Your task to perform on an android device: Empty the shopping cart on newegg. Image 0: 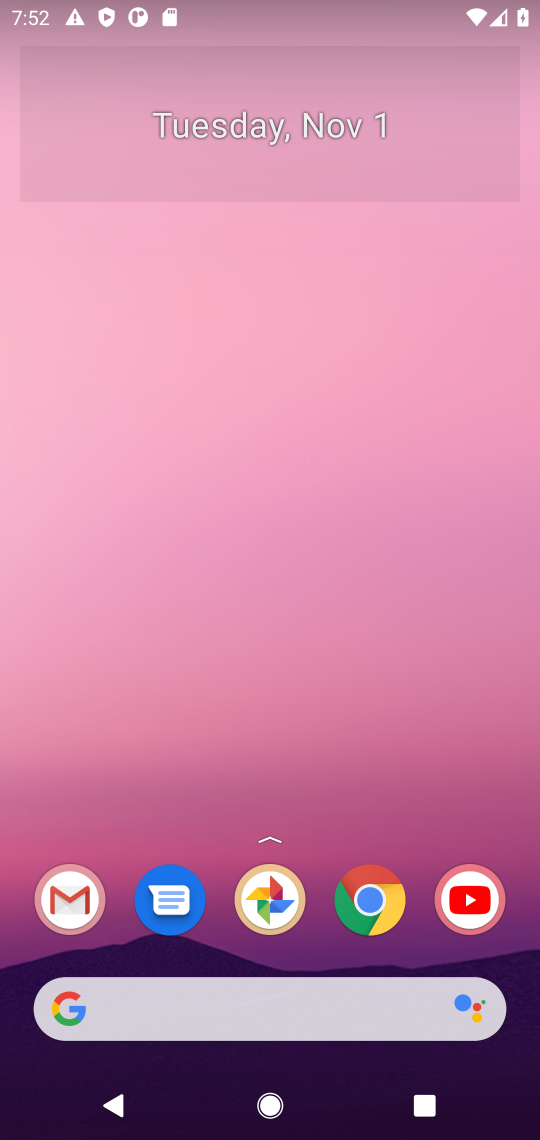
Step 0: drag from (306, 967) to (431, 74)
Your task to perform on an android device: Empty the shopping cart on newegg. Image 1: 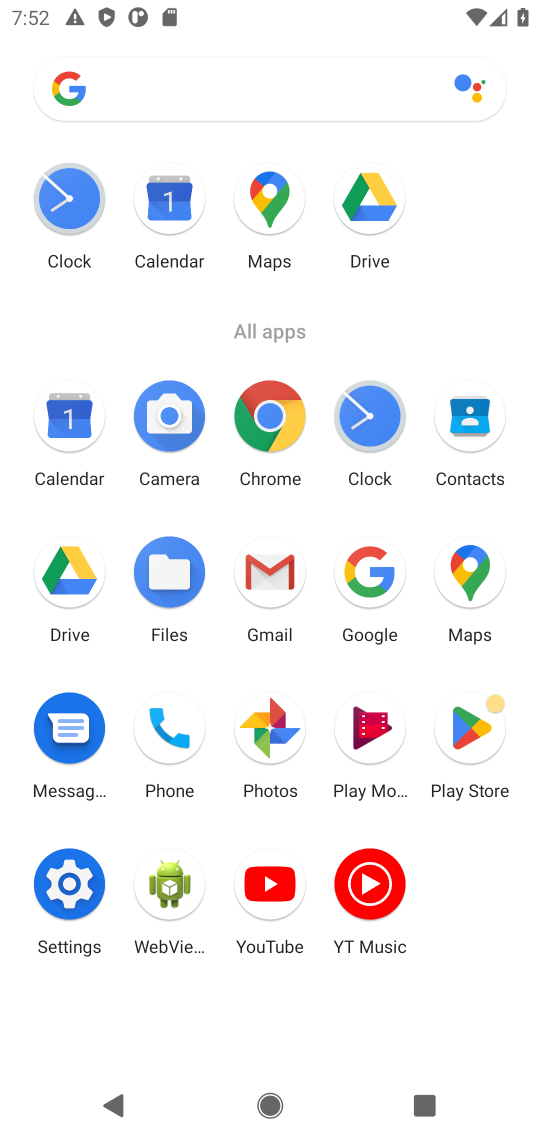
Step 1: click (275, 427)
Your task to perform on an android device: Empty the shopping cart on newegg. Image 2: 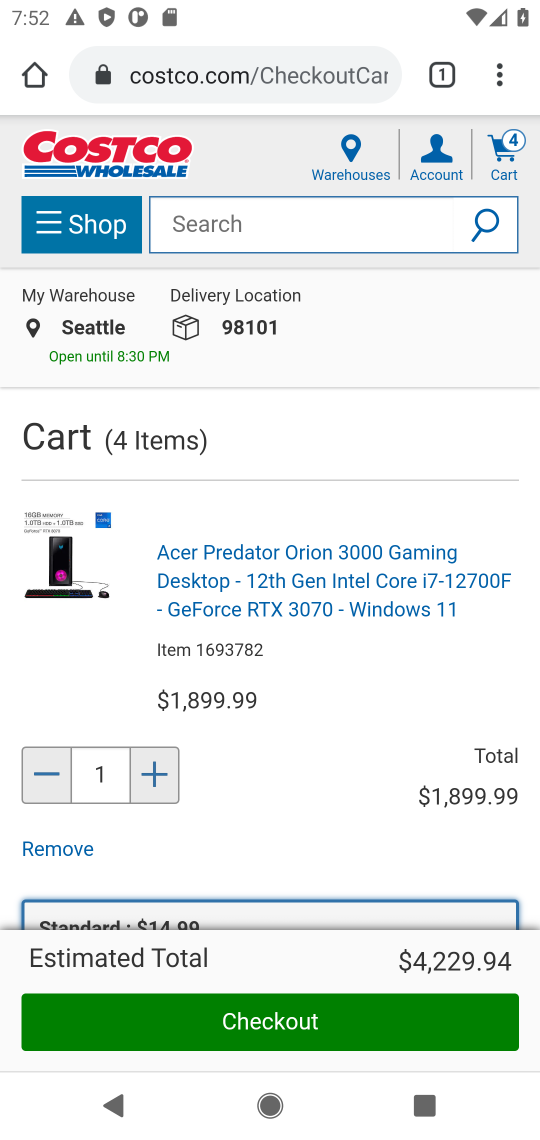
Step 2: click (311, 77)
Your task to perform on an android device: Empty the shopping cart on newegg. Image 3: 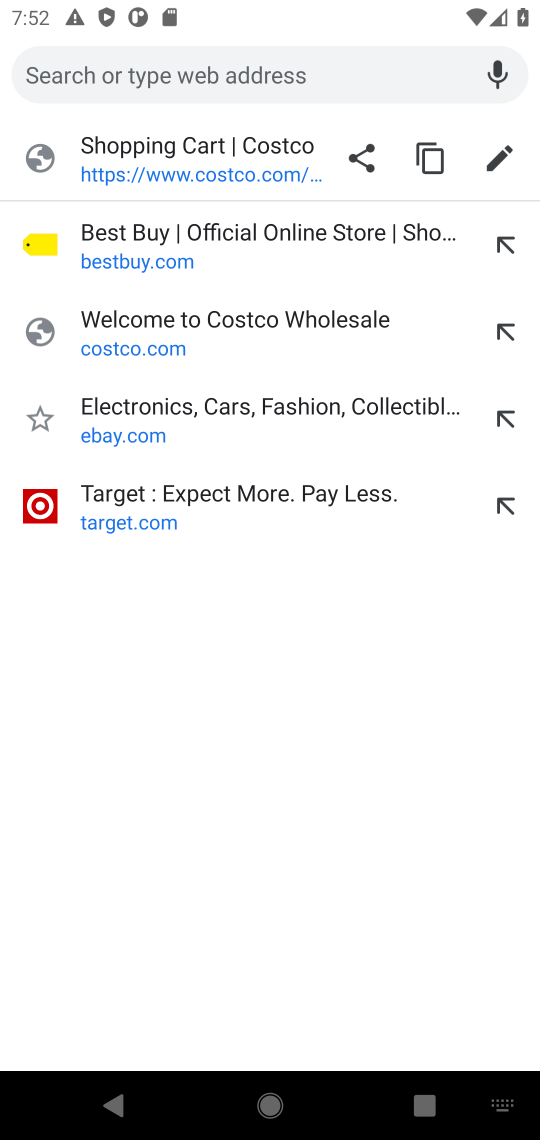
Step 3: type "newegg.com"
Your task to perform on an android device: Empty the shopping cart on newegg. Image 4: 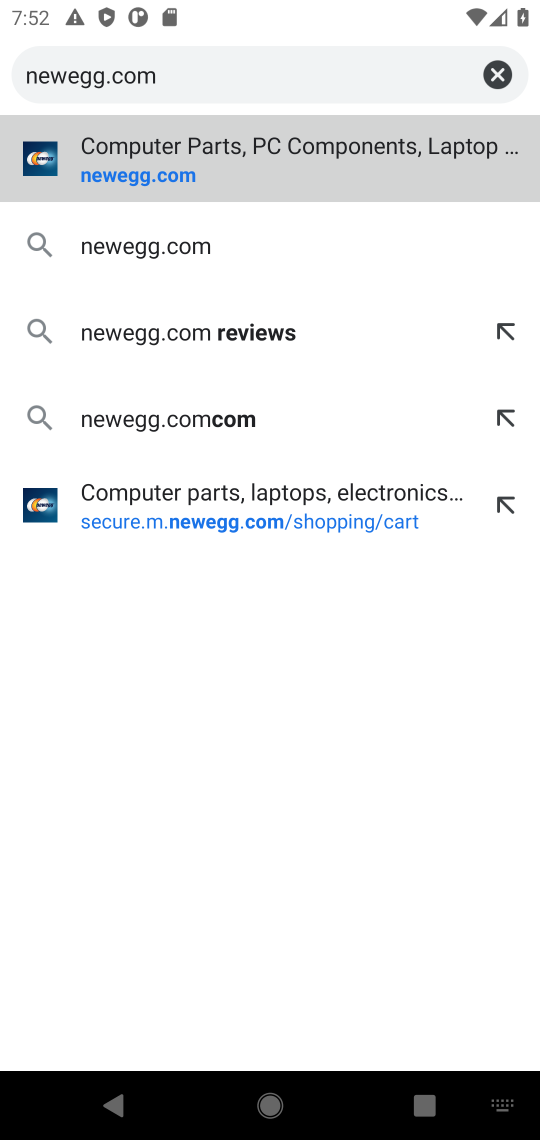
Step 4: press enter
Your task to perform on an android device: Empty the shopping cart on newegg. Image 5: 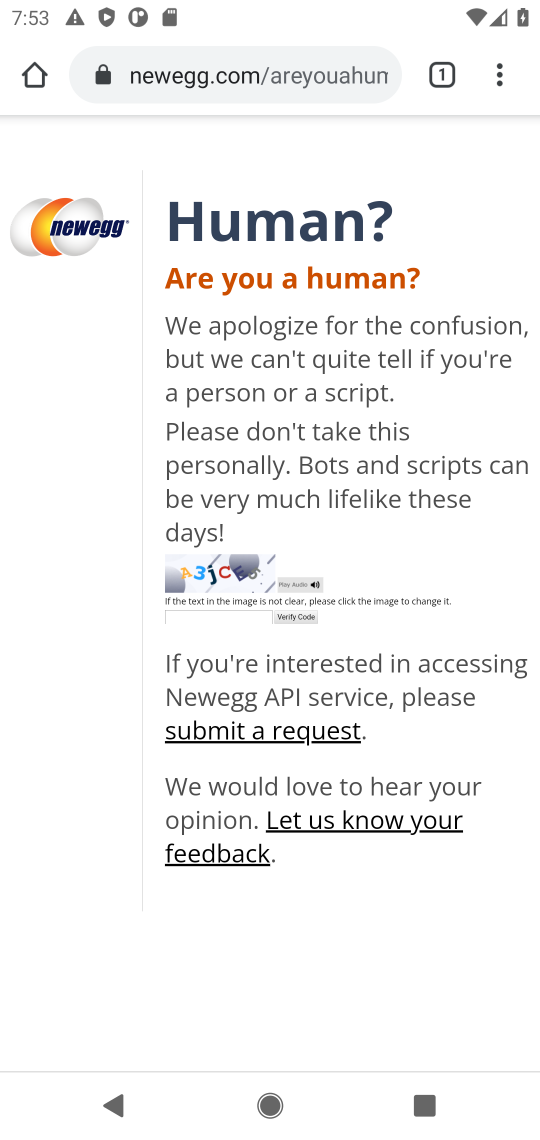
Step 5: click (208, 622)
Your task to perform on an android device: Empty the shopping cart on newegg. Image 6: 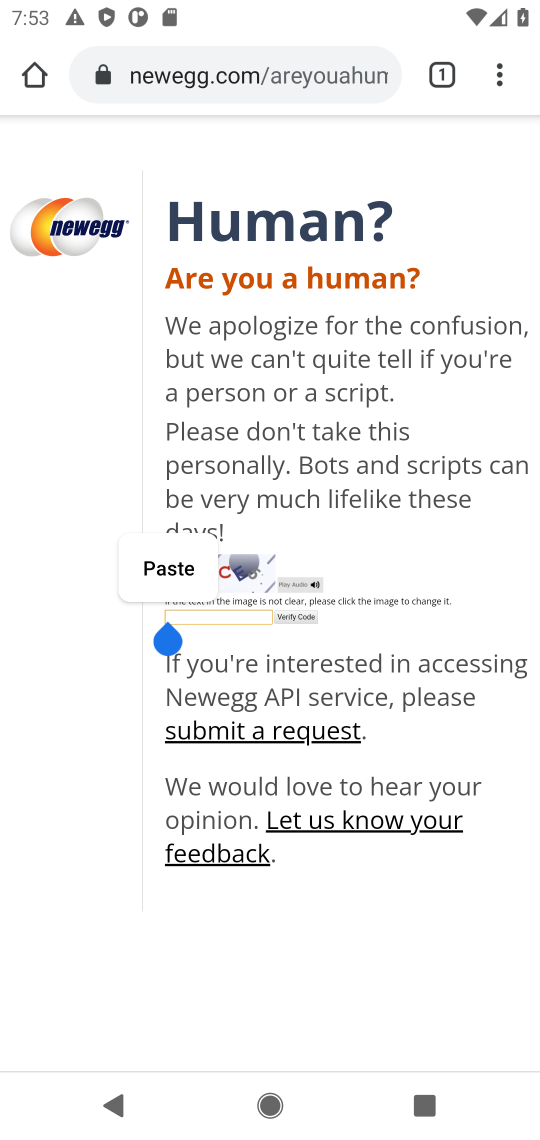
Step 6: click (209, 615)
Your task to perform on an android device: Empty the shopping cart on newegg. Image 7: 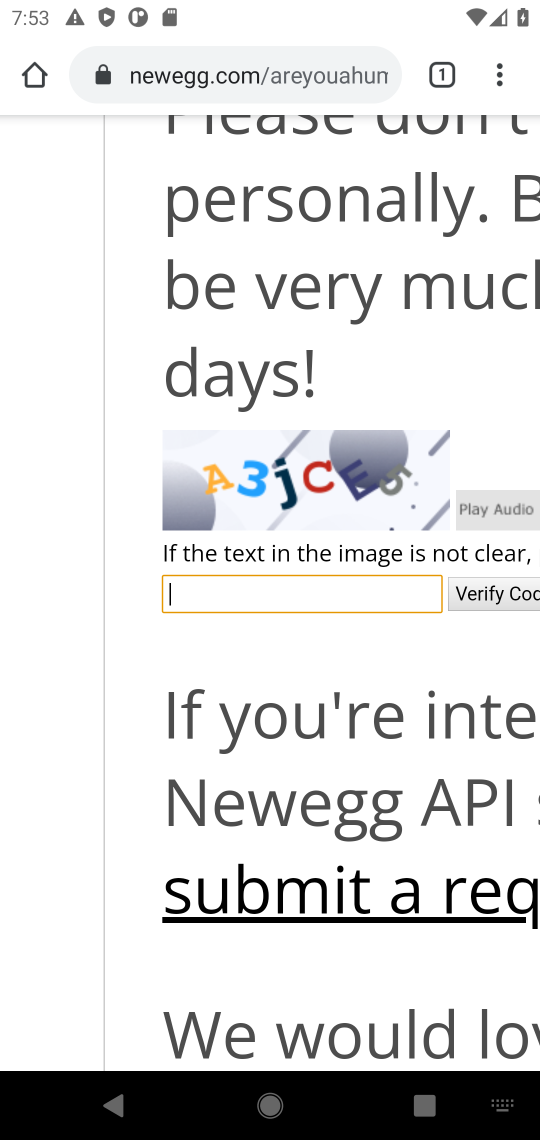
Step 7: type "A3jCE5"
Your task to perform on an android device: Empty the shopping cart on newegg. Image 8: 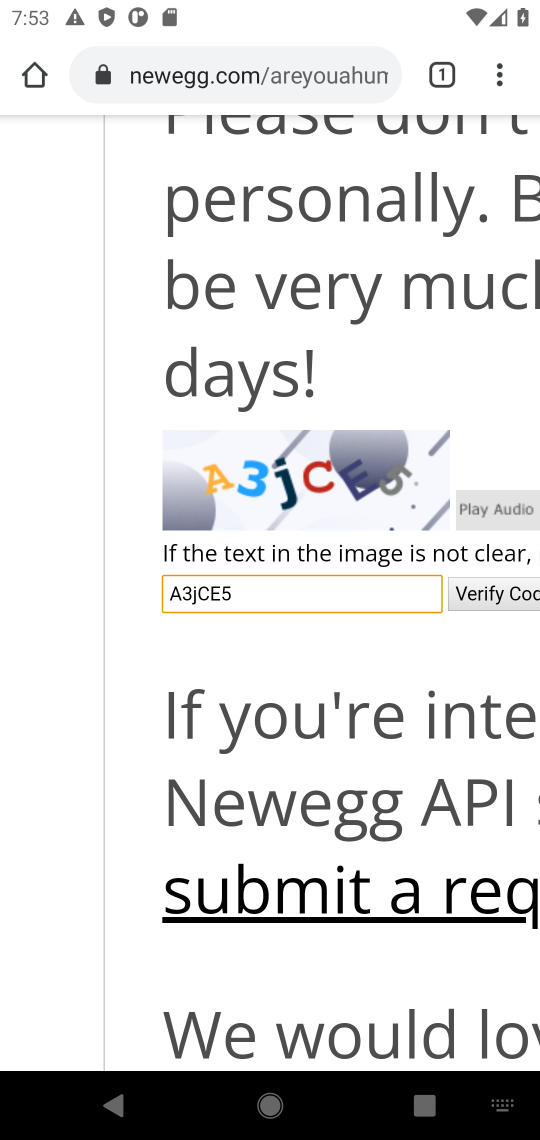
Step 8: press enter
Your task to perform on an android device: Empty the shopping cart on newegg. Image 9: 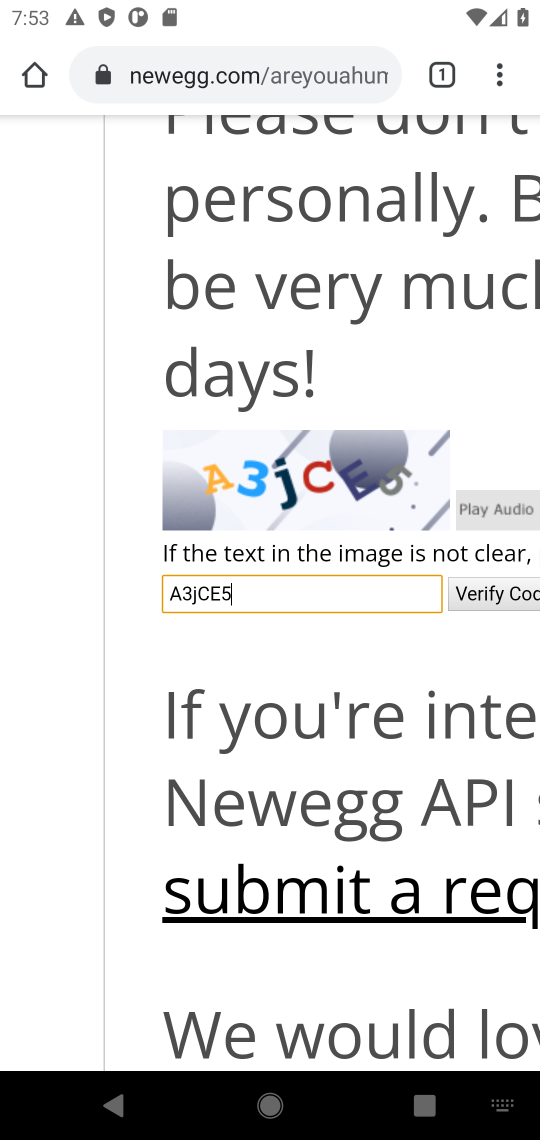
Step 9: click (499, 582)
Your task to perform on an android device: Empty the shopping cart on newegg. Image 10: 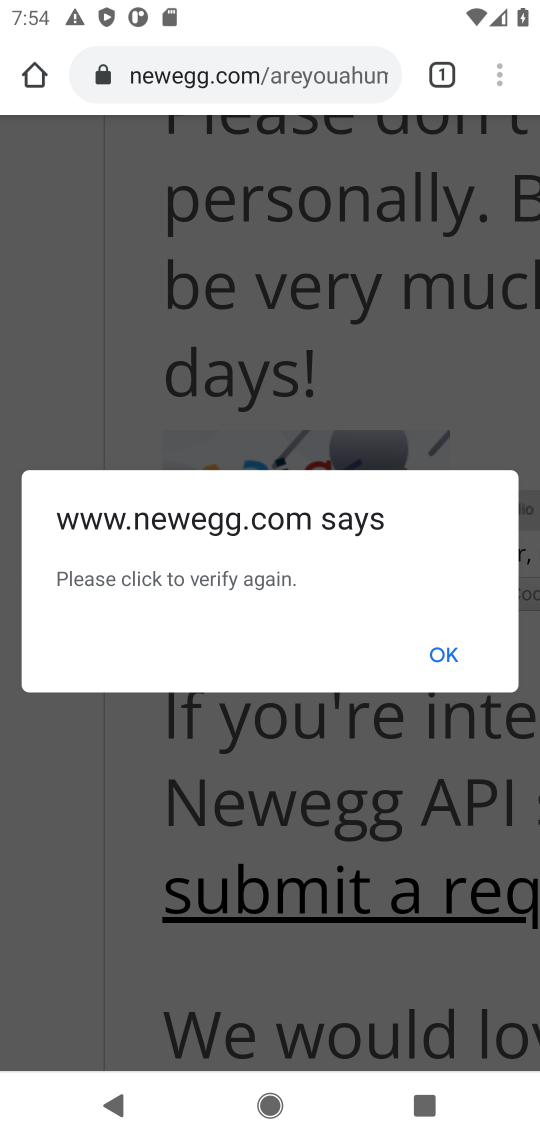
Step 10: click (445, 654)
Your task to perform on an android device: Empty the shopping cart on newegg. Image 11: 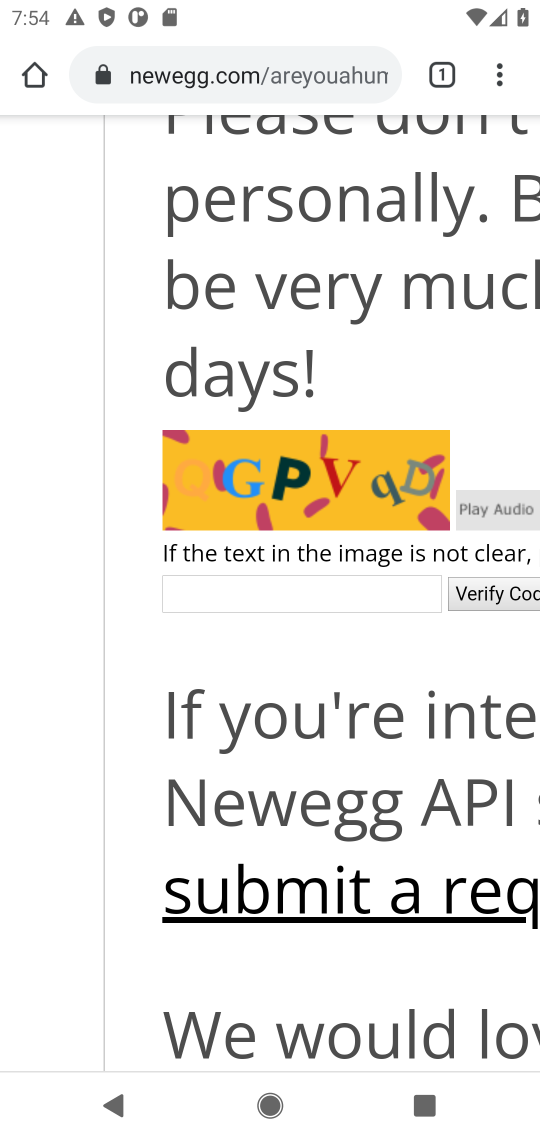
Step 11: click (355, 585)
Your task to perform on an android device: Empty the shopping cart on newegg. Image 12: 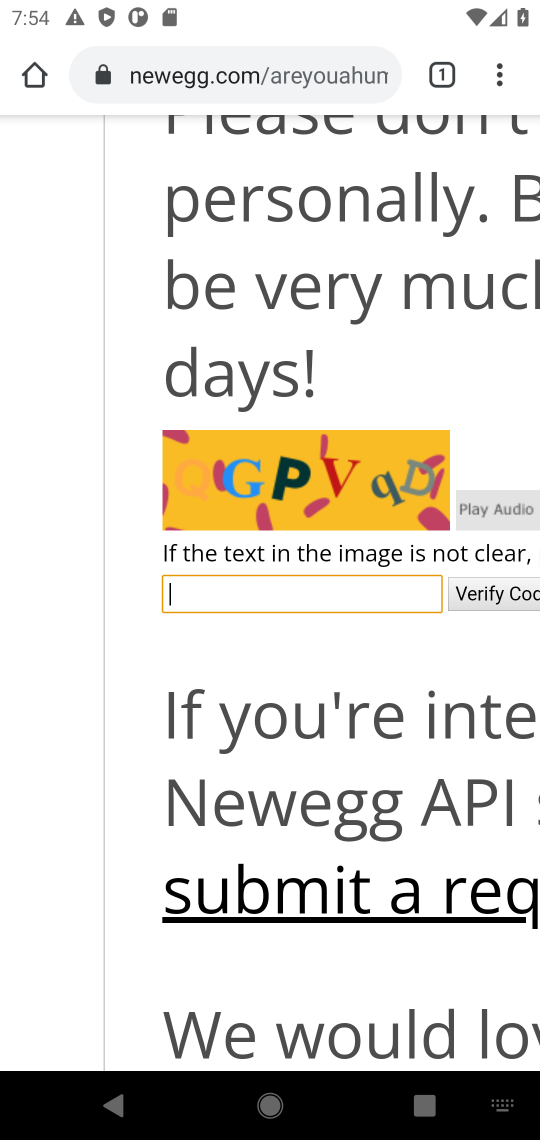
Step 12: type "QGPVqD"
Your task to perform on an android device: Empty the shopping cart on newegg. Image 13: 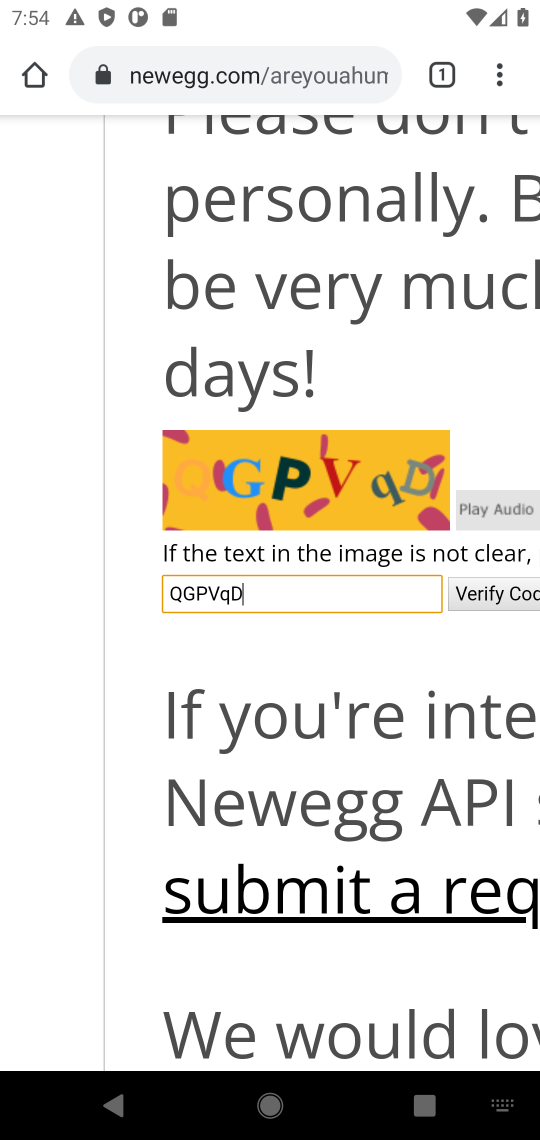
Step 13: click (525, 606)
Your task to perform on an android device: Empty the shopping cart on newegg. Image 14: 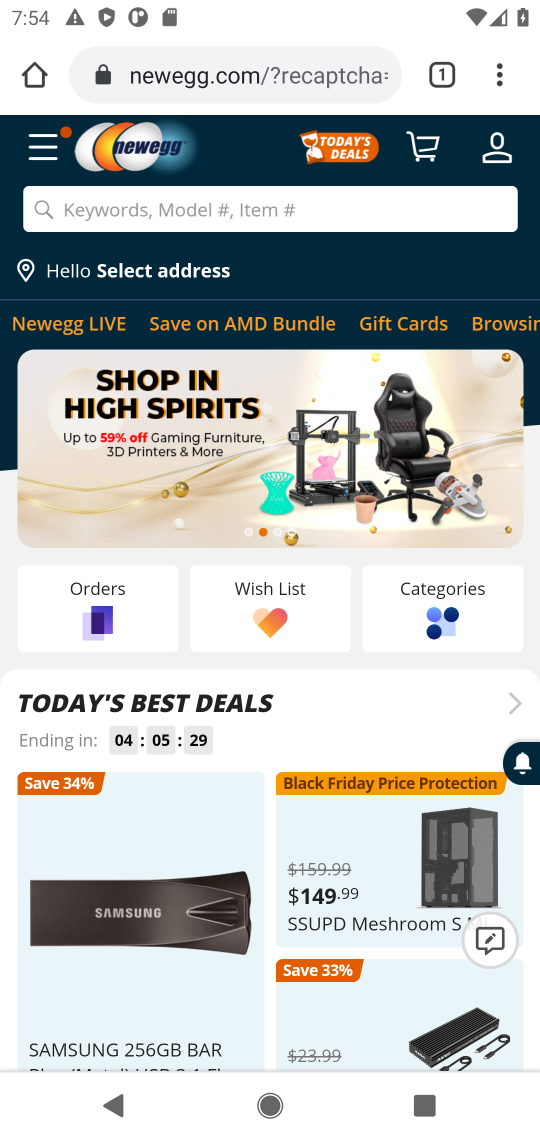
Step 14: click (419, 143)
Your task to perform on an android device: Empty the shopping cart on newegg. Image 15: 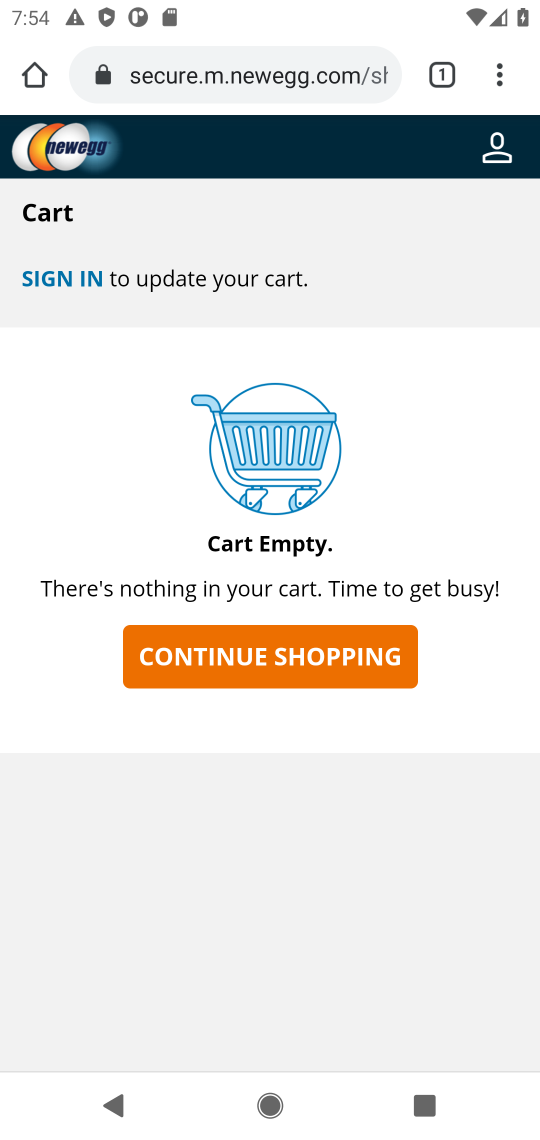
Step 15: task complete